Your task to perform on an android device: open wifi settings Image 0: 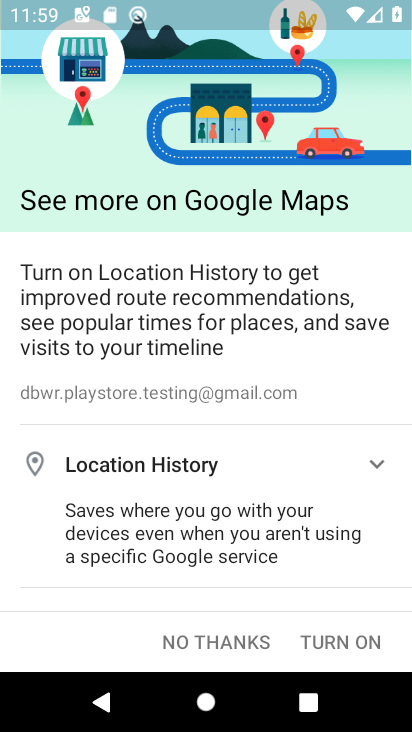
Step 0: press back button
Your task to perform on an android device: open wifi settings Image 1: 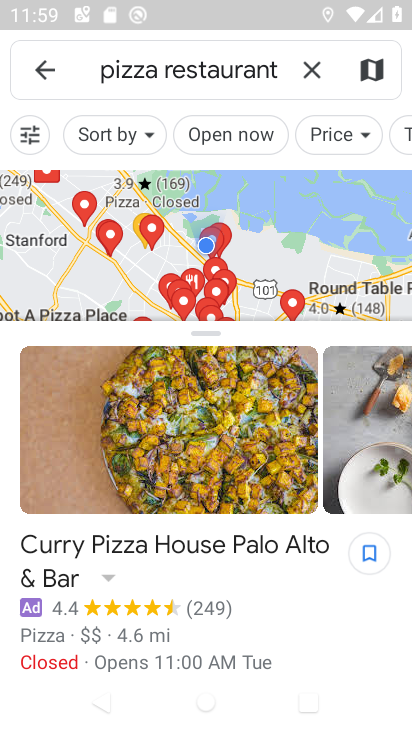
Step 1: press home button
Your task to perform on an android device: open wifi settings Image 2: 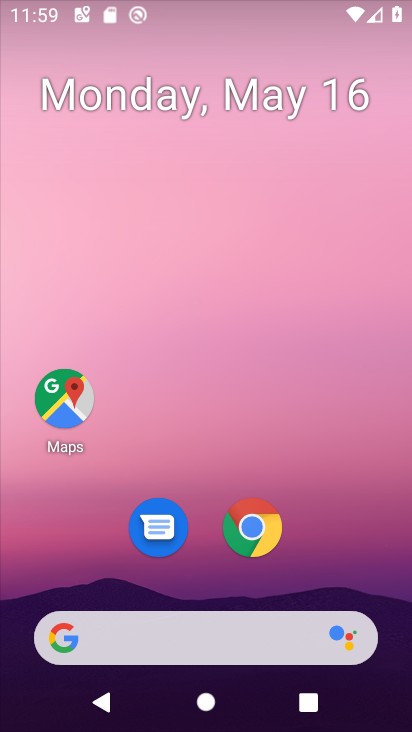
Step 2: drag from (278, 442) to (307, 86)
Your task to perform on an android device: open wifi settings Image 3: 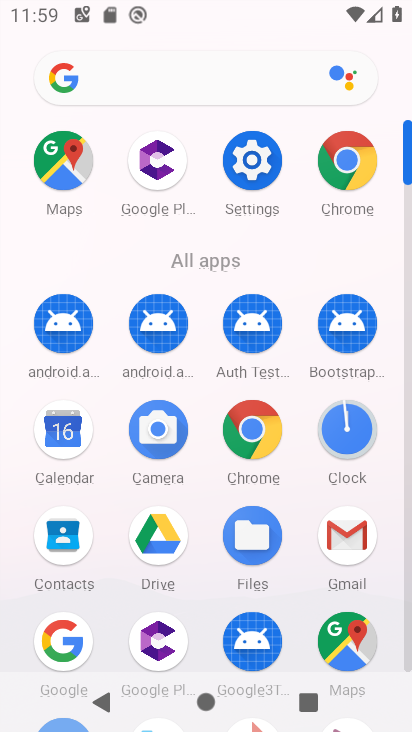
Step 3: click (256, 173)
Your task to perform on an android device: open wifi settings Image 4: 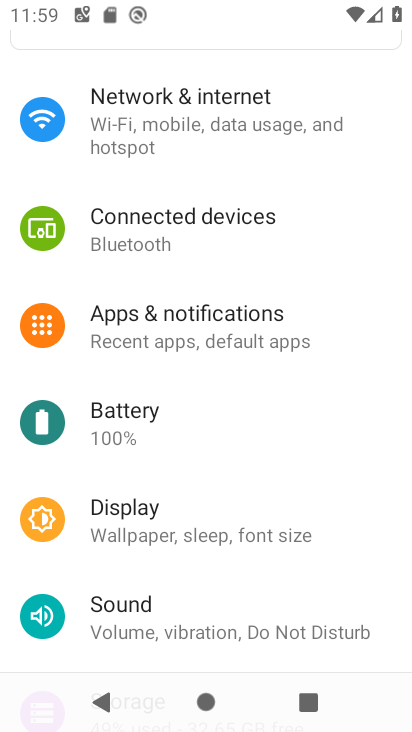
Step 4: click (228, 125)
Your task to perform on an android device: open wifi settings Image 5: 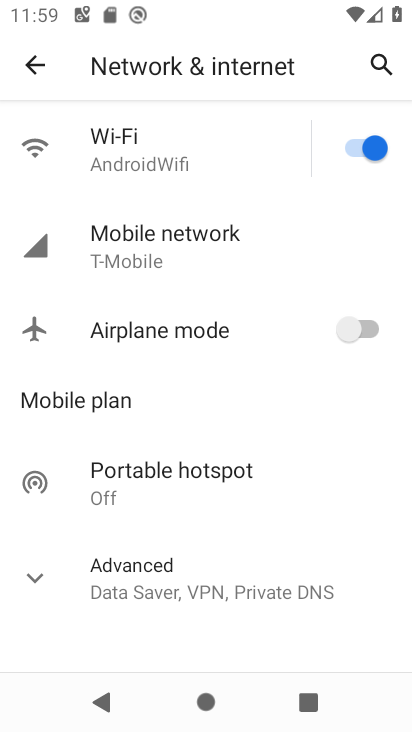
Step 5: click (193, 143)
Your task to perform on an android device: open wifi settings Image 6: 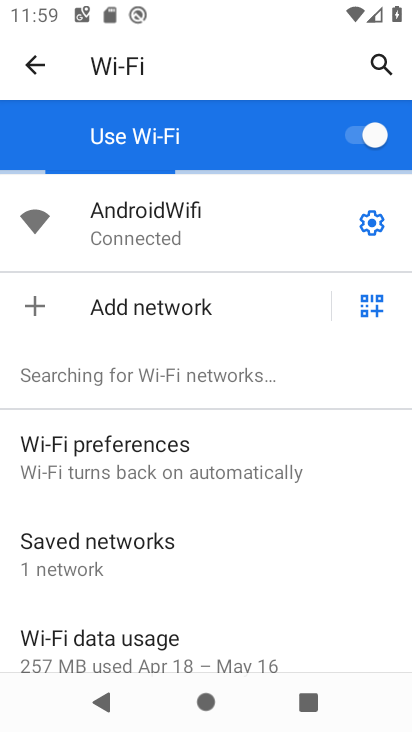
Step 6: task complete